Your task to perform on an android device: Open location settings Image 0: 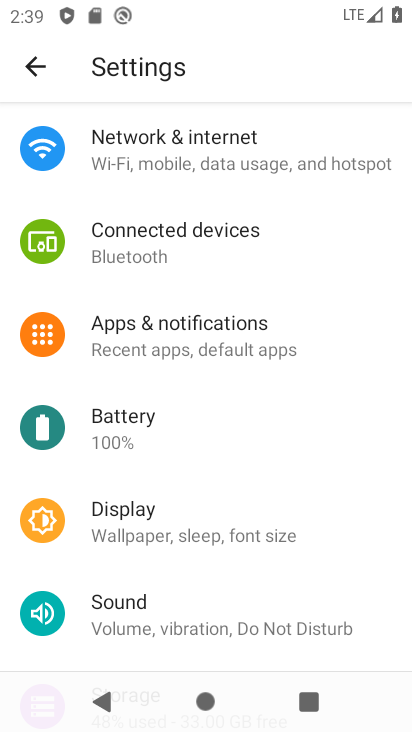
Step 0: drag from (244, 510) to (205, 127)
Your task to perform on an android device: Open location settings Image 1: 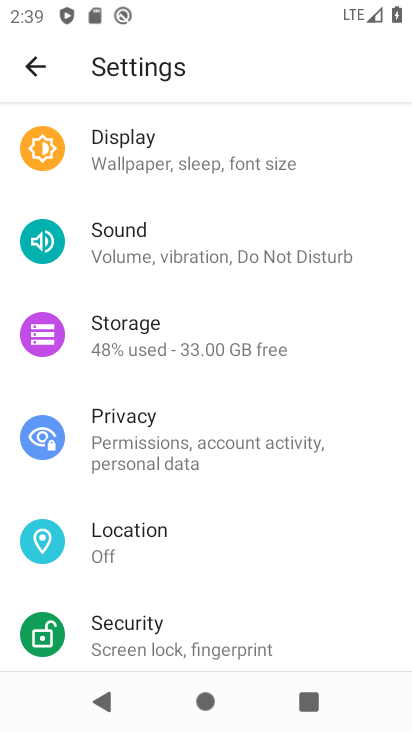
Step 1: click (178, 531)
Your task to perform on an android device: Open location settings Image 2: 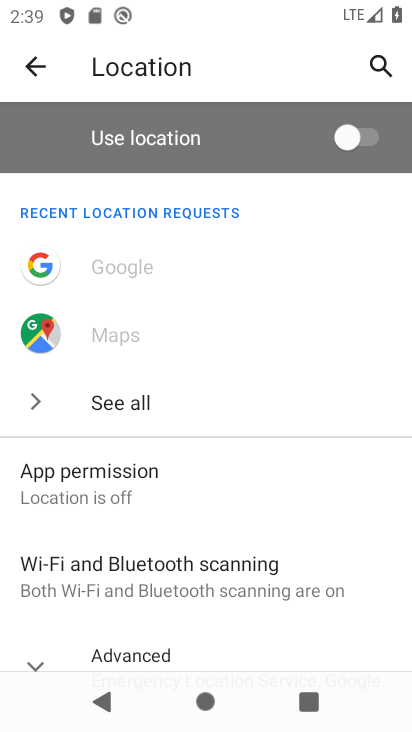
Step 2: task complete